Your task to perform on an android device: Clear all items from cart on amazon. Image 0: 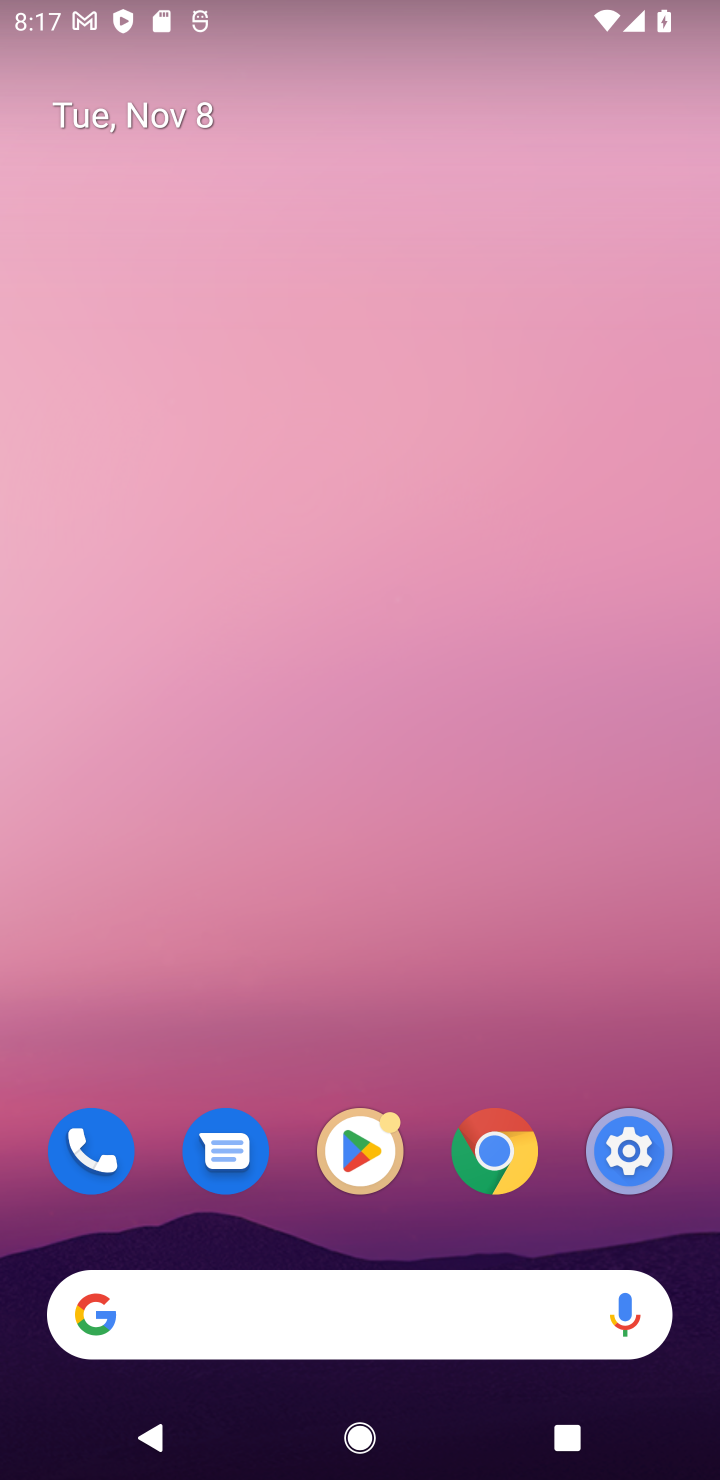
Step 0: click (435, 1330)
Your task to perform on an android device: Clear all items from cart on amazon. Image 1: 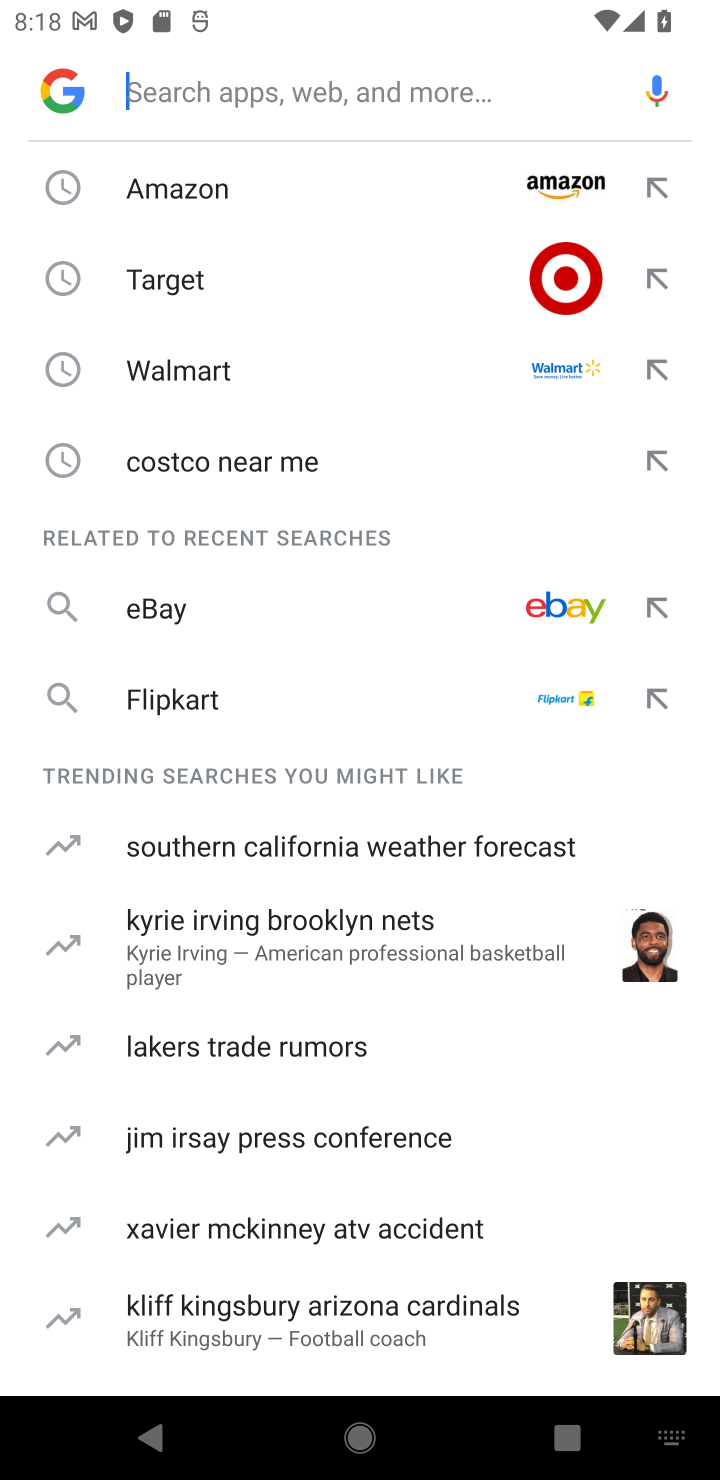
Step 1: click (481, 190)
Your task to perform on an android device: Clear all items from cart on amazon. Image 2: 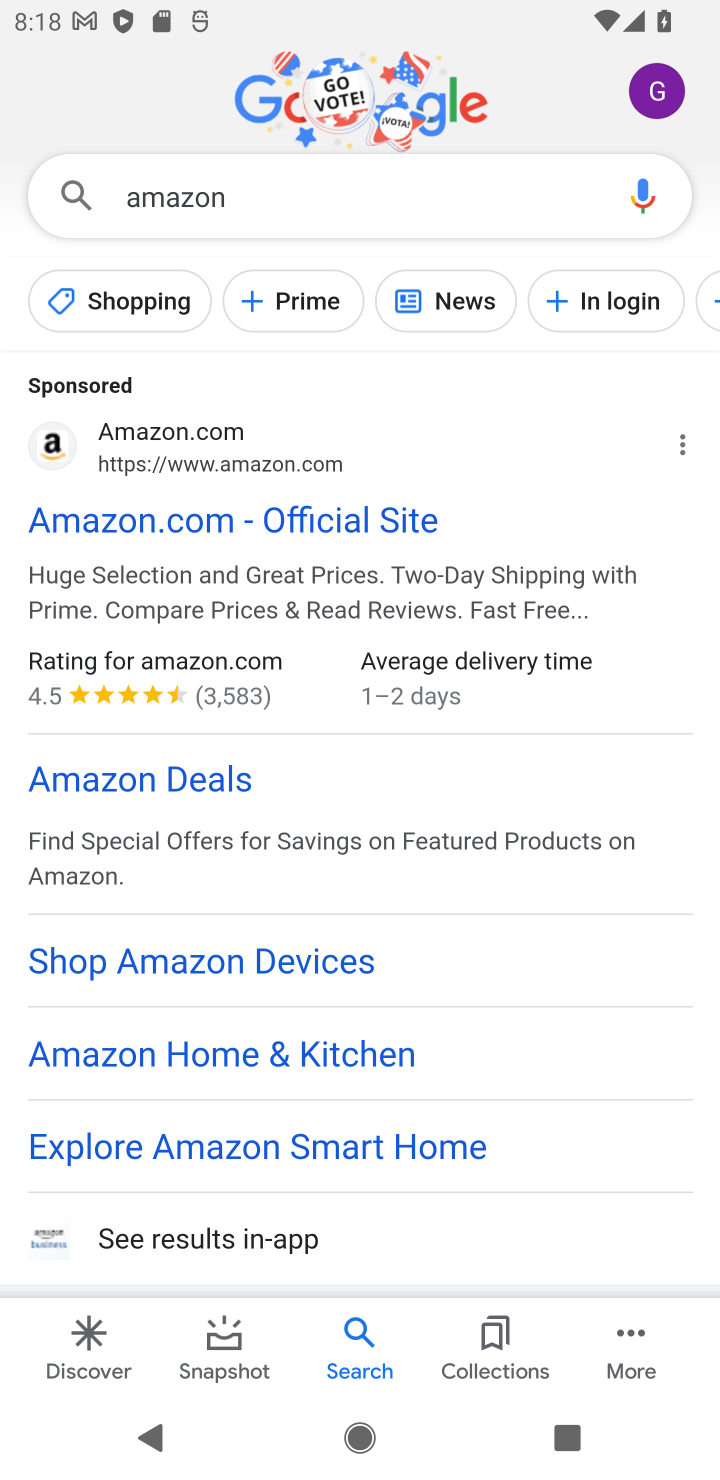
Step 2: click (247, 524)
Your task to perform on an android device: Clear all items from cart on amazon. Image 3: 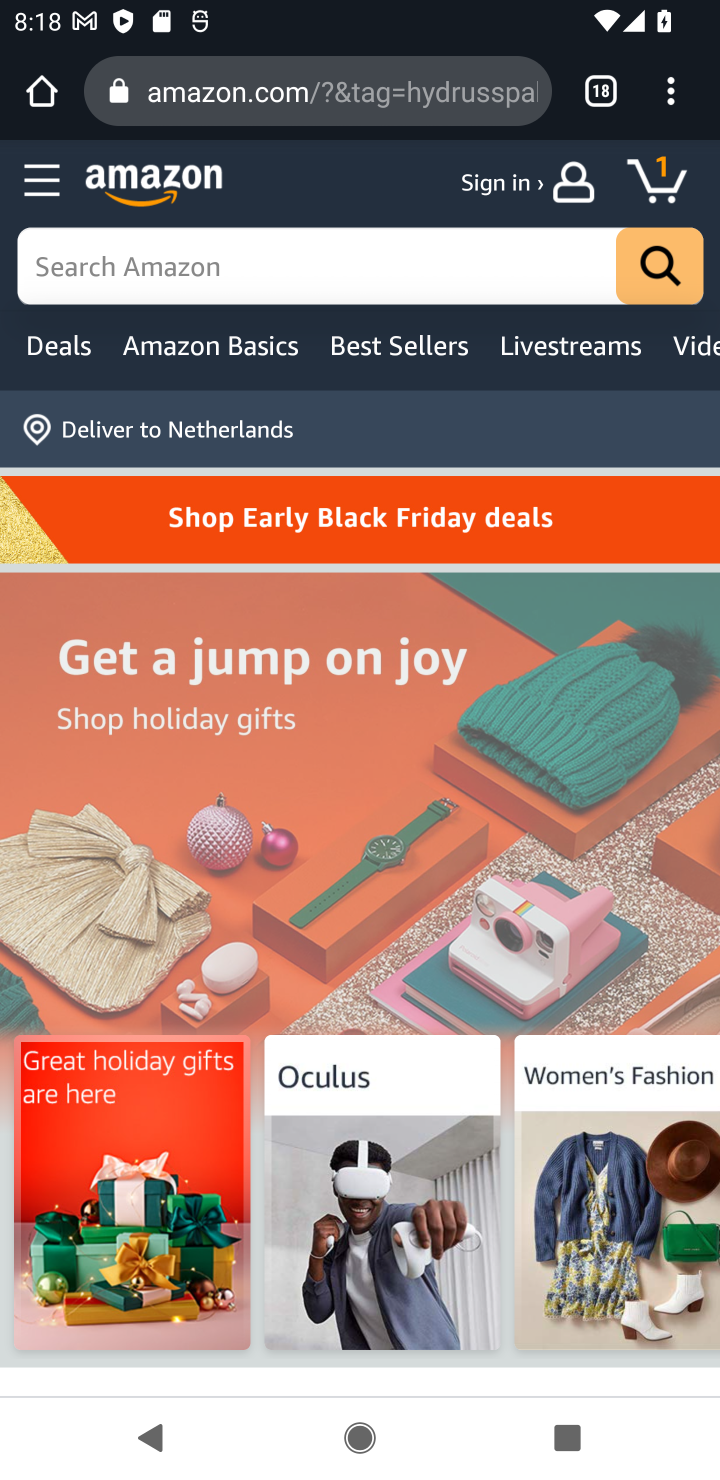
Step 3: click (160, 273)
Your task to perform on an android device: Clear all items from cart on amazon. Image 4: 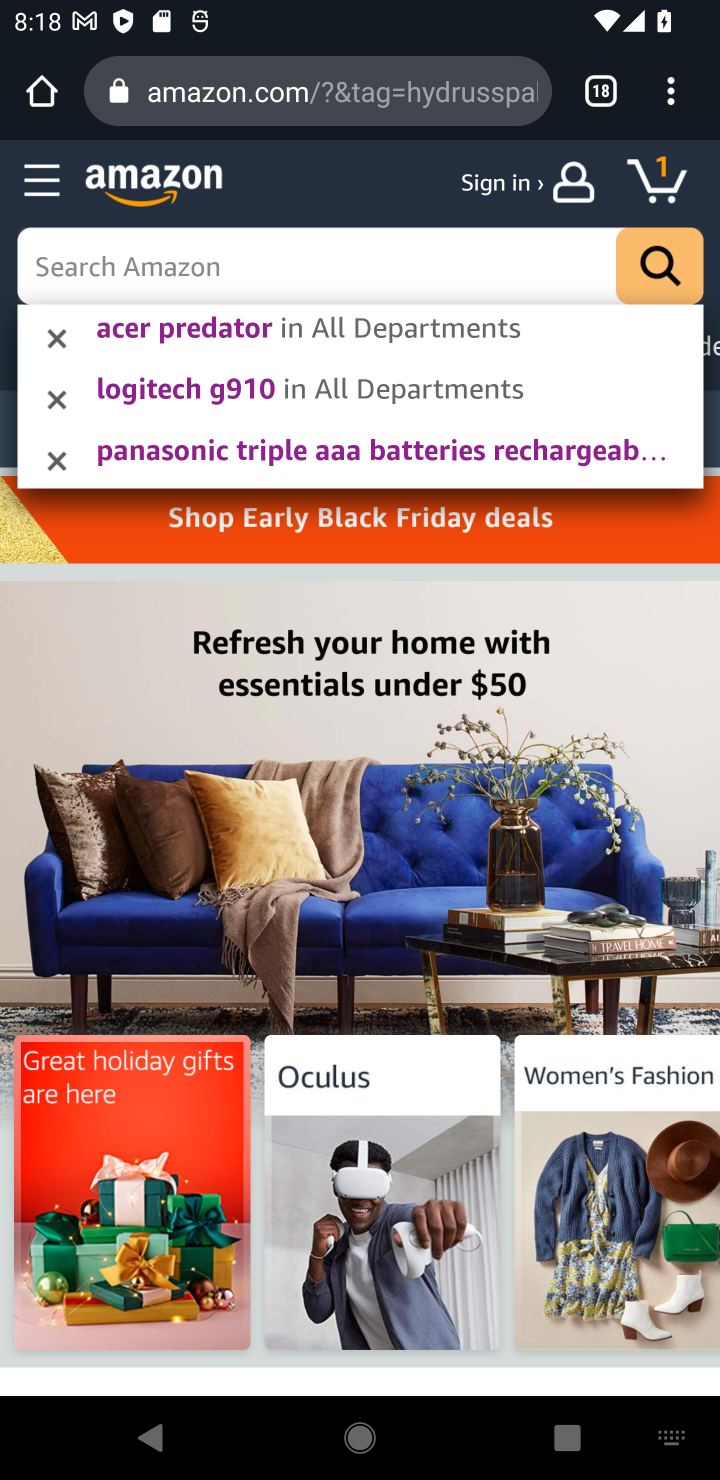
Step 4: click (676, 190)
Your task to perform on an android device: Clear all items from cart on amazon. Image 5: 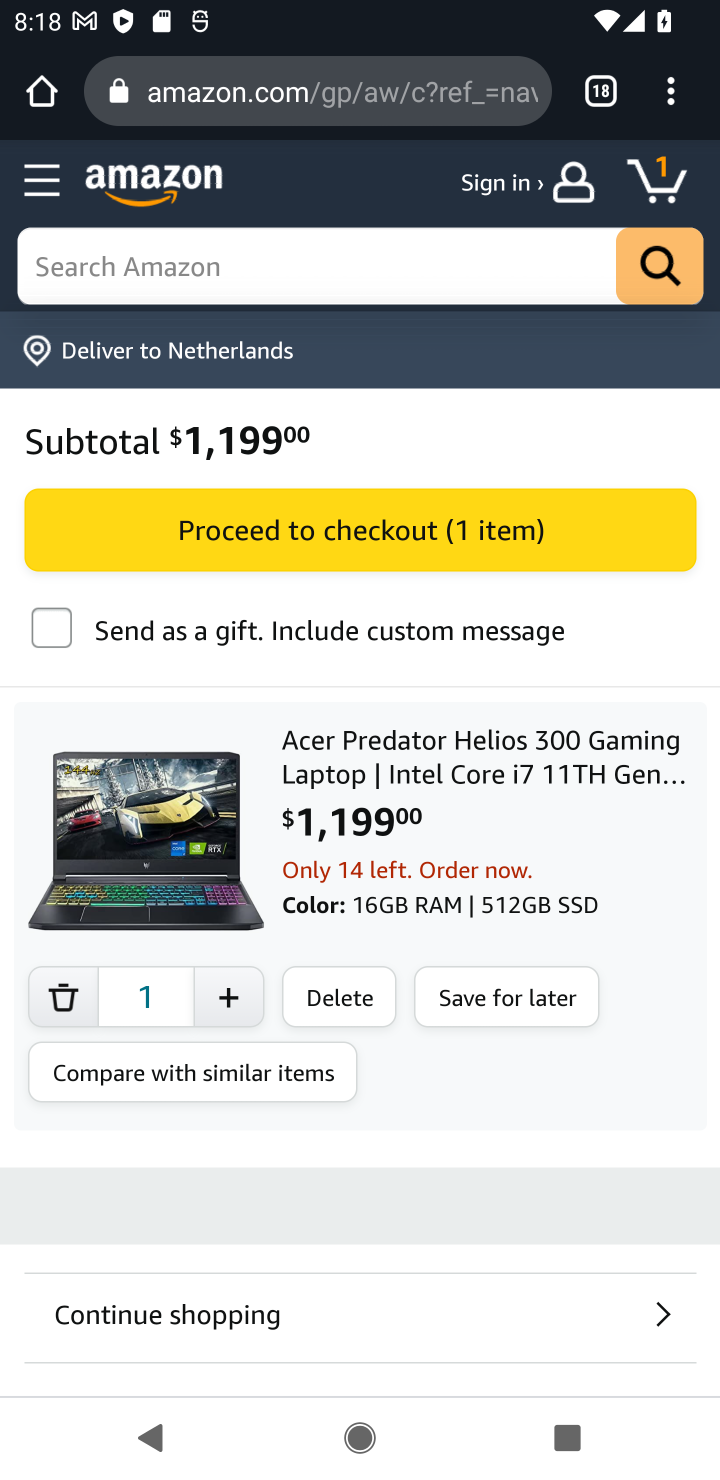
Step 5: click (447, 252)
Your task to perform on an android device: Clear all items from cart on amazon. Image 6: 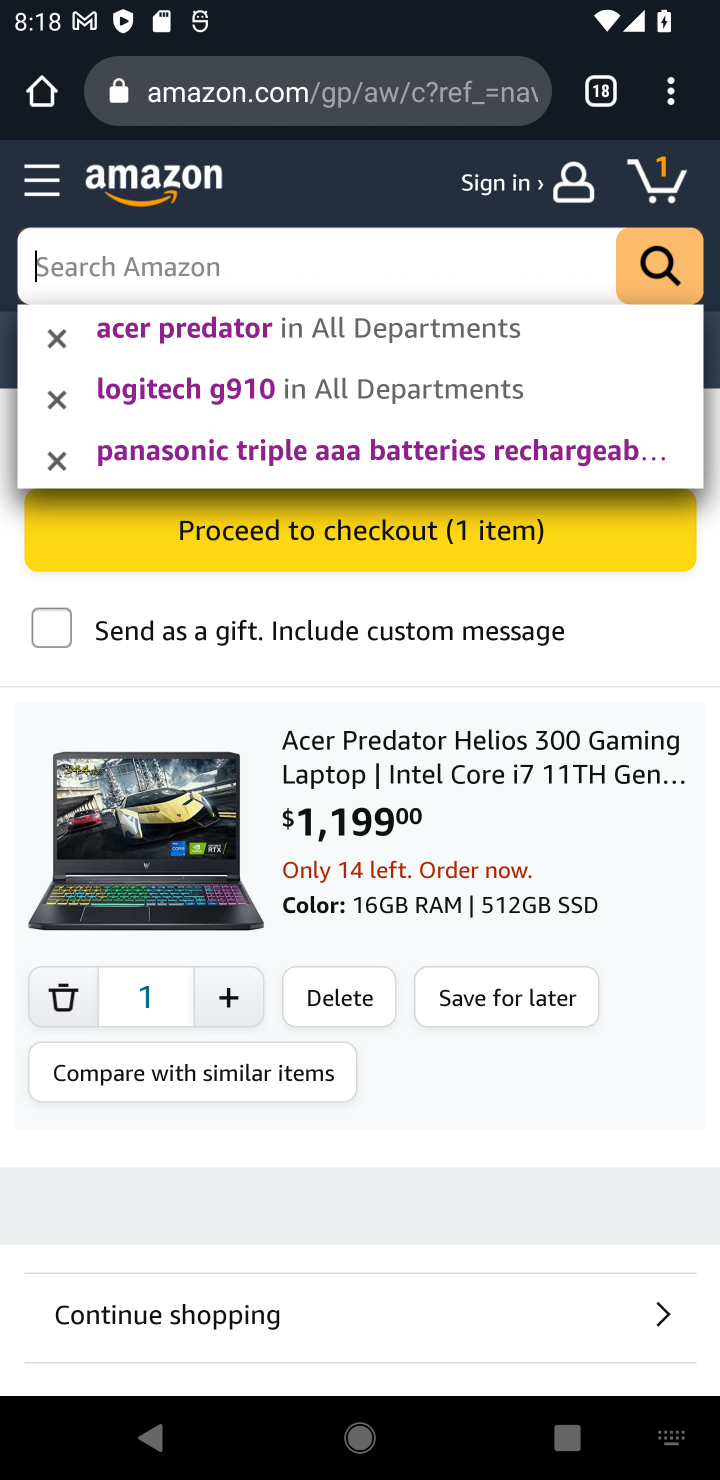
Step 6: click (644, 195)
Your task to perform on an android device: Clear all items from cart on amazon. Image 7: 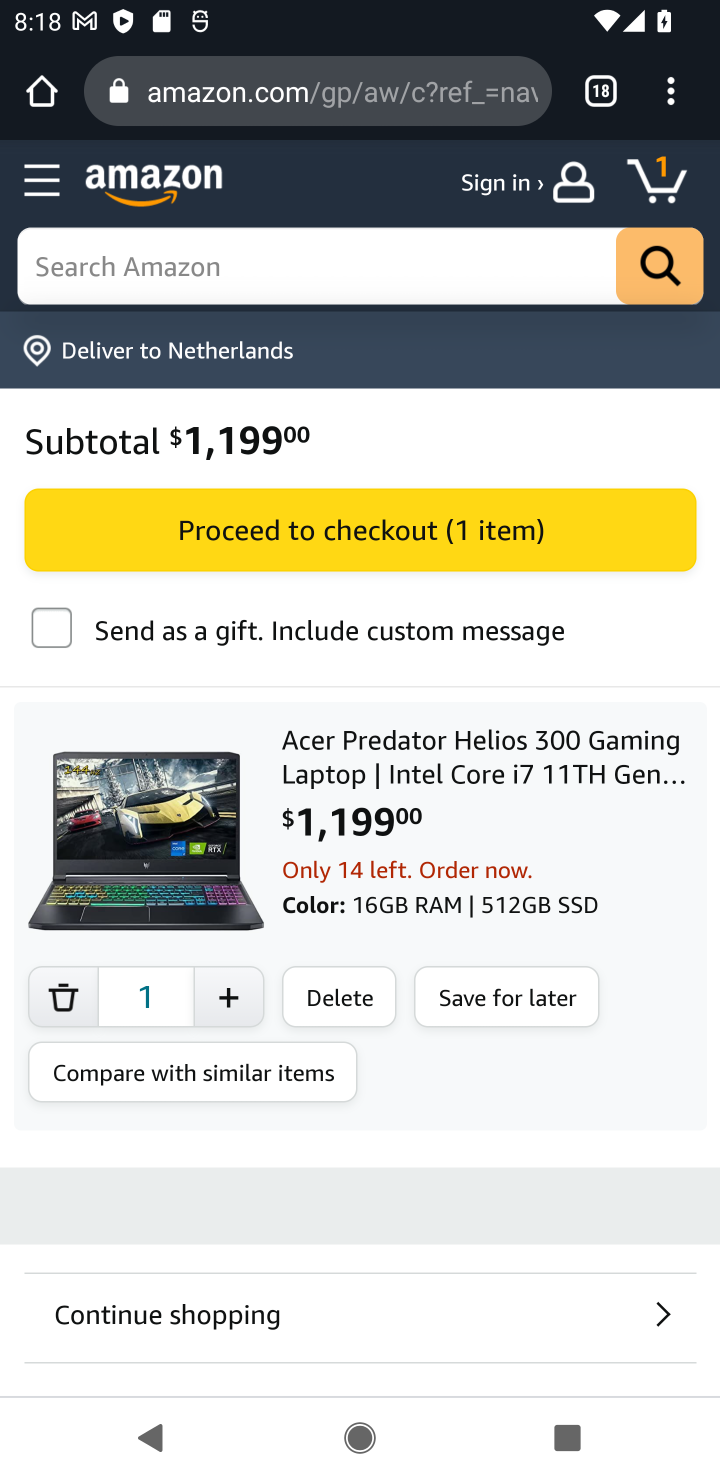
Step 7: click (644, 195)
Your task to perform on an android device: Clear all items from cart on amazon. Image 8: 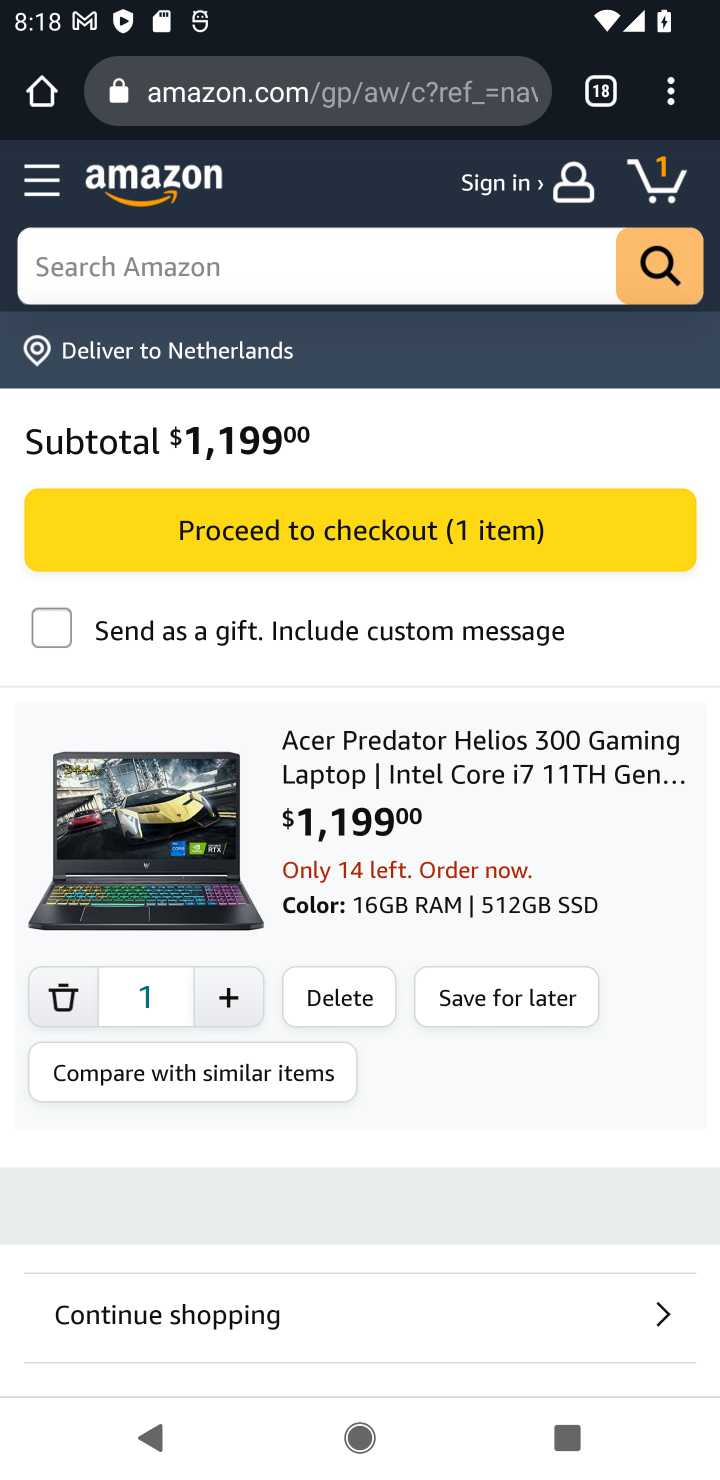
Step 8: click (336, 985)
Your task to perform on an android device: Clear all items from cart on amazon. Image 9: 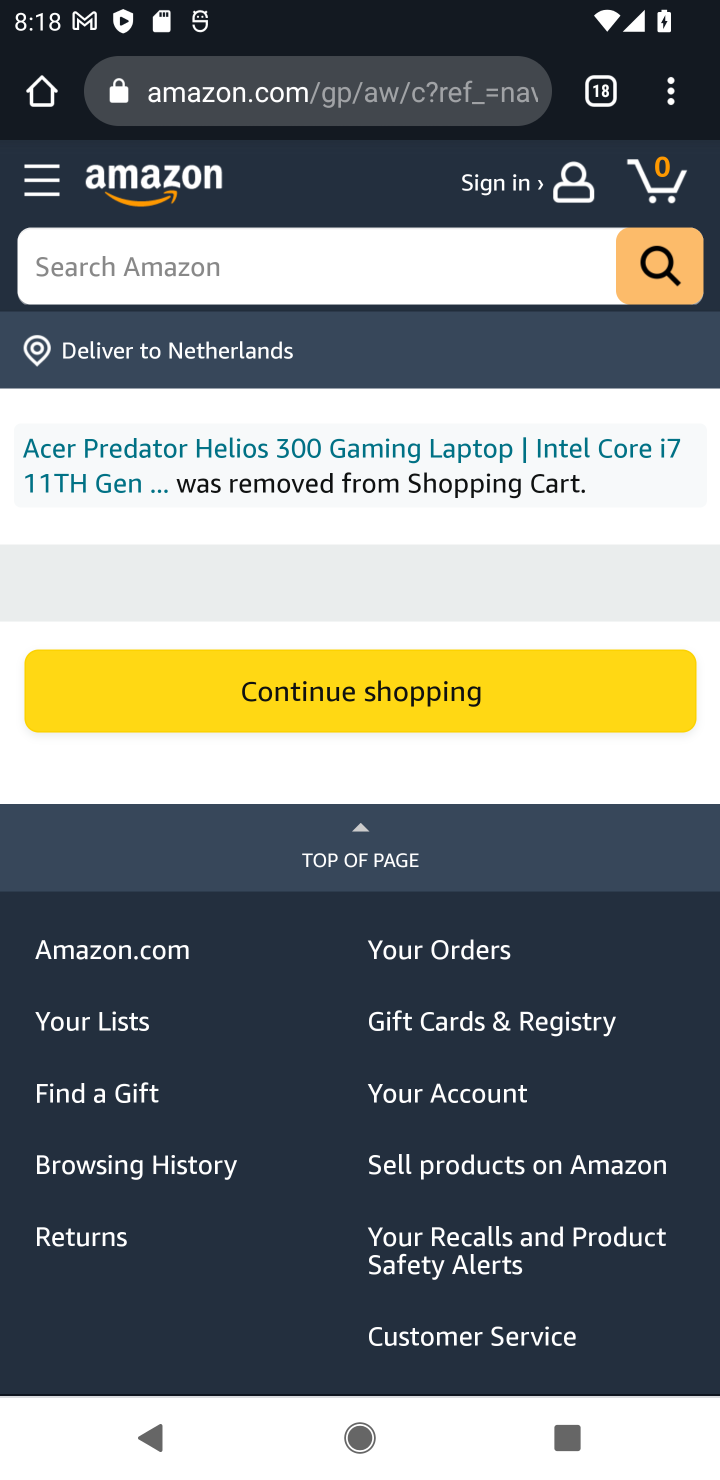
Step 9: task complete